Your task to perform on an android device: Do I have any events today? Image 0: 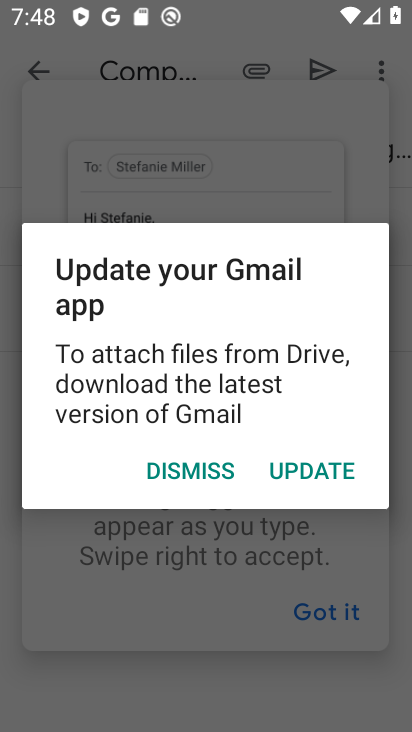
Step 0: press home button
Your task to perform on an android device: Do I have any events today? Image 1: 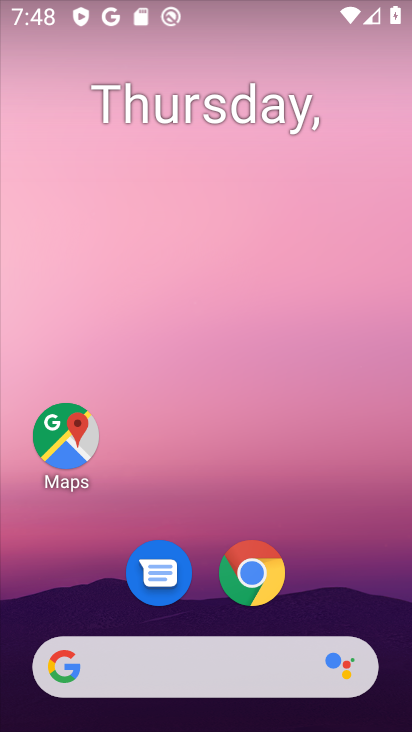
Step 1: drag from (349, 545) to (335, 114)
Your task to perform on an android device: Do I have any events today? Image 2: 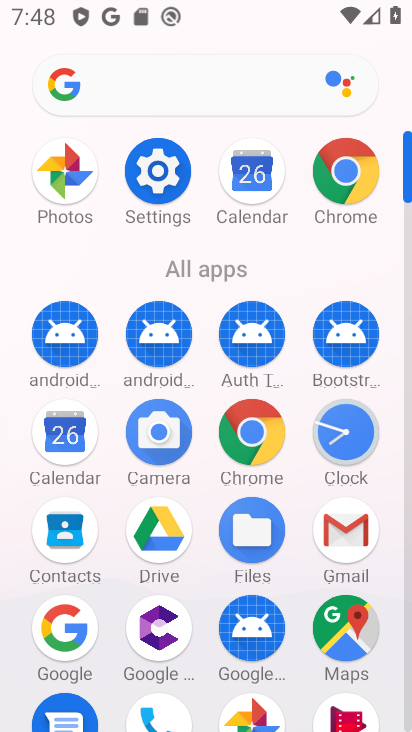
Step 2: click (264, 184)
Your task to perform on an android device: Do I have any events today? Image 3: 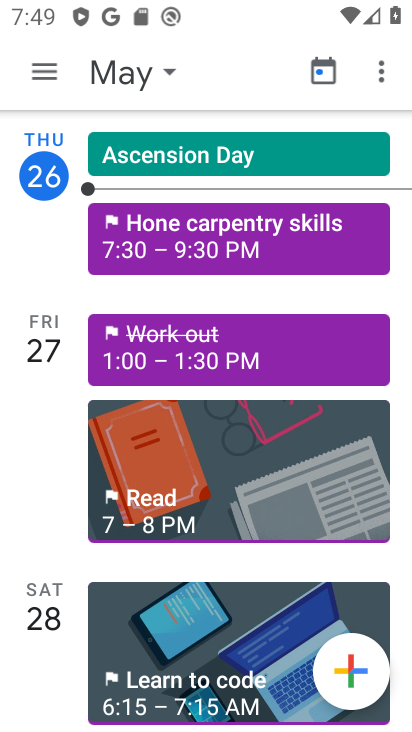
Step 3: task complete